Your task to perform on an android device: change the clock display to show seconds Image 0: 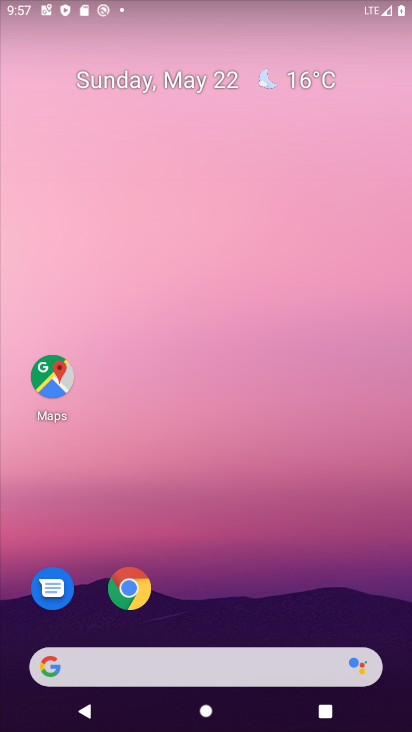
Step 0: drag from (202, 577) to (240, 178)
Your task to perform on an android device: change the clock display to show seconds Image 1: 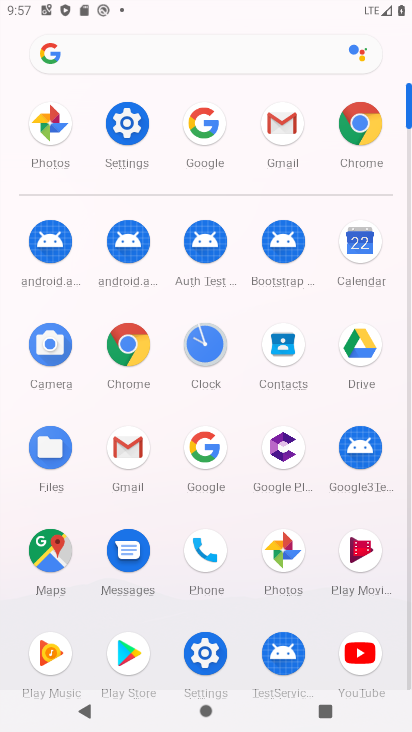
Step 1: click (186, 349)
Your task to perform on an android device: change the clock display to show seconds Image 2: 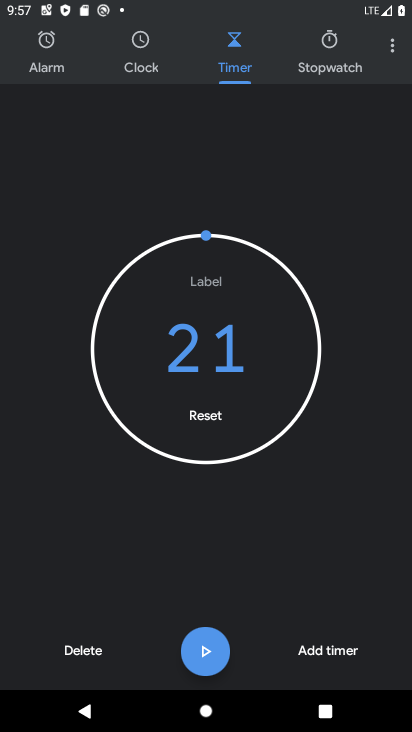
Step 2: click (393, 48)
Your task to perform on an android device: change the clock display to show seconds Image 3: 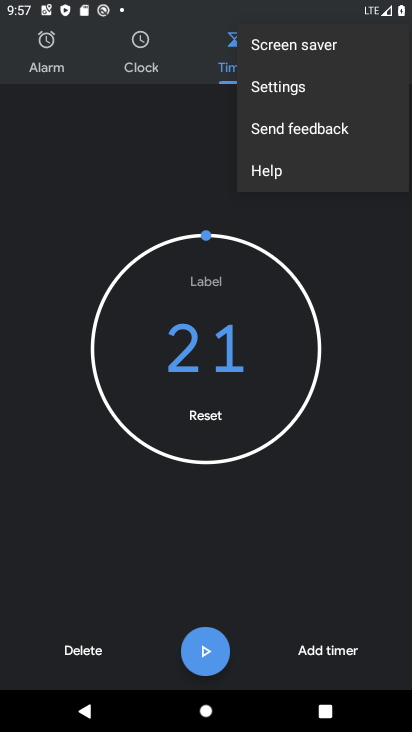
Step 3: click (307, 98)
Your task to perform on an android device: change the clock display to show seconds Image 4: 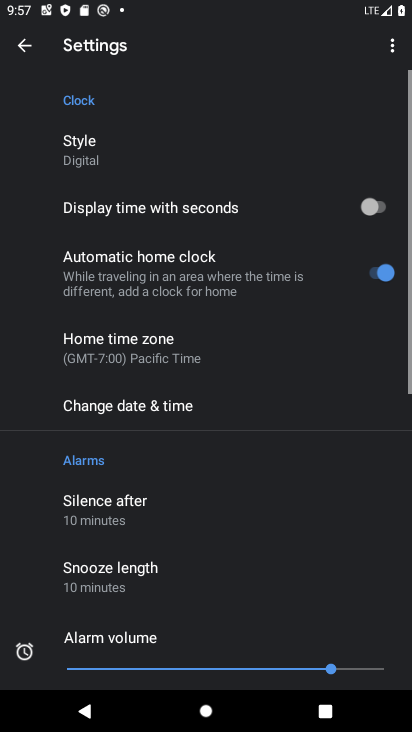
Step 4: click (142, 141)
Your task to perform on an android device: change the clock display to show seconds Image 5: 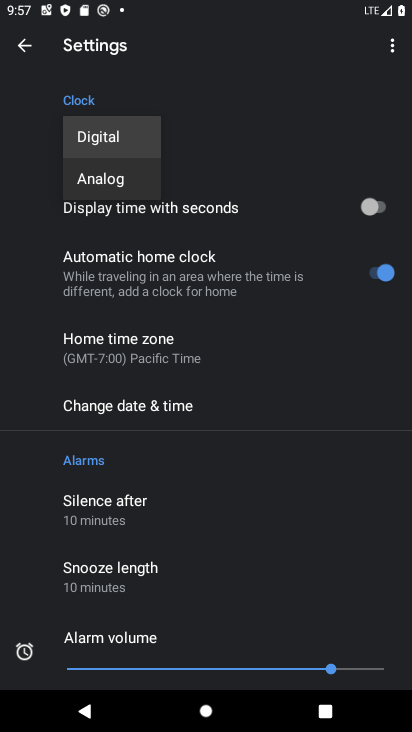
Step 5: click (367, 213)
Your task to perform on an android device: change the clock display to show seconds Image 6: 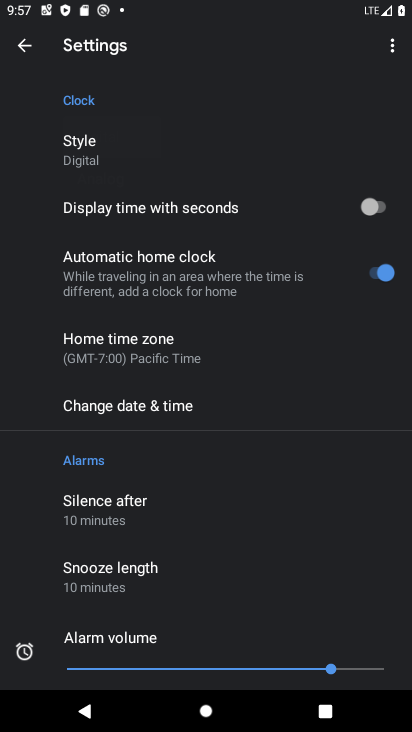
Step 6: click (380, 206)
Your task to perform on an android device: change the clock display to show seconds Image 7: 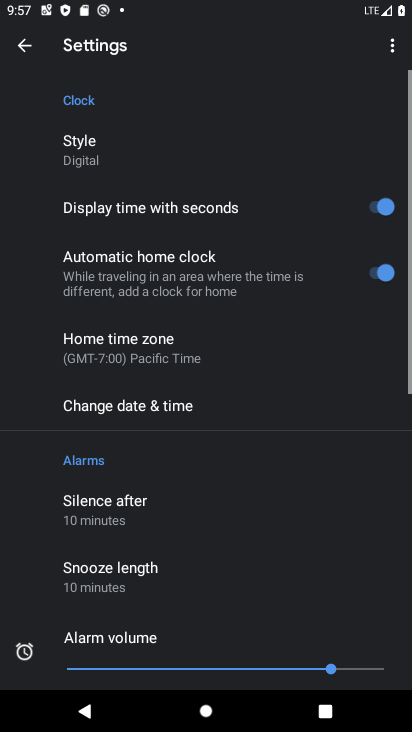
Step 7: task complete